Your task to perform on an android device: Clear the cart on target. Add "beats solo 3" to the cart on target, then select checkout. Image 0: 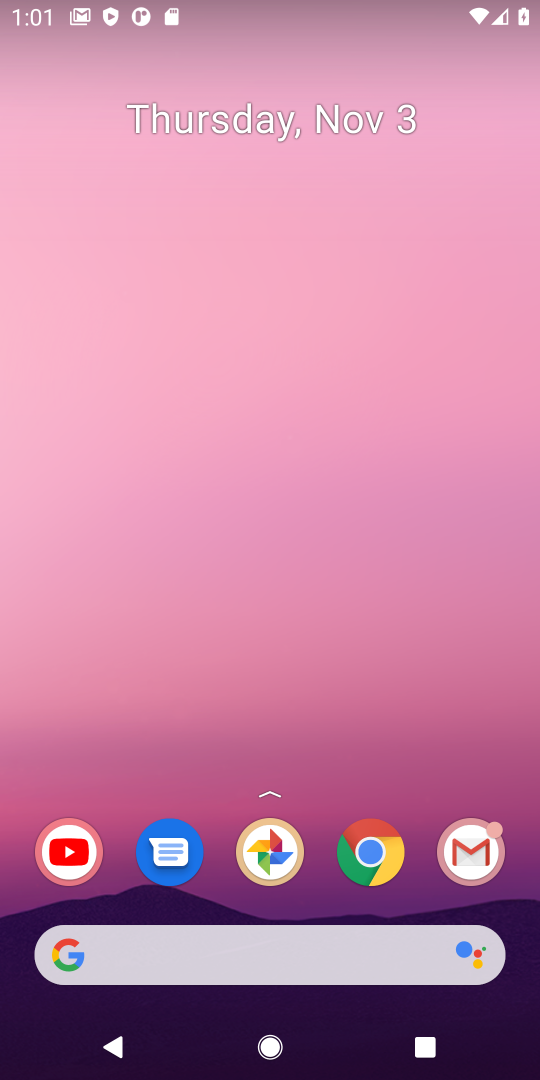
Step 0: click (360, 863)
Your task to perform on an android device: Clear the cart on target. Add "beats solo 3" to the cart on target, then select checkout. Image 1: 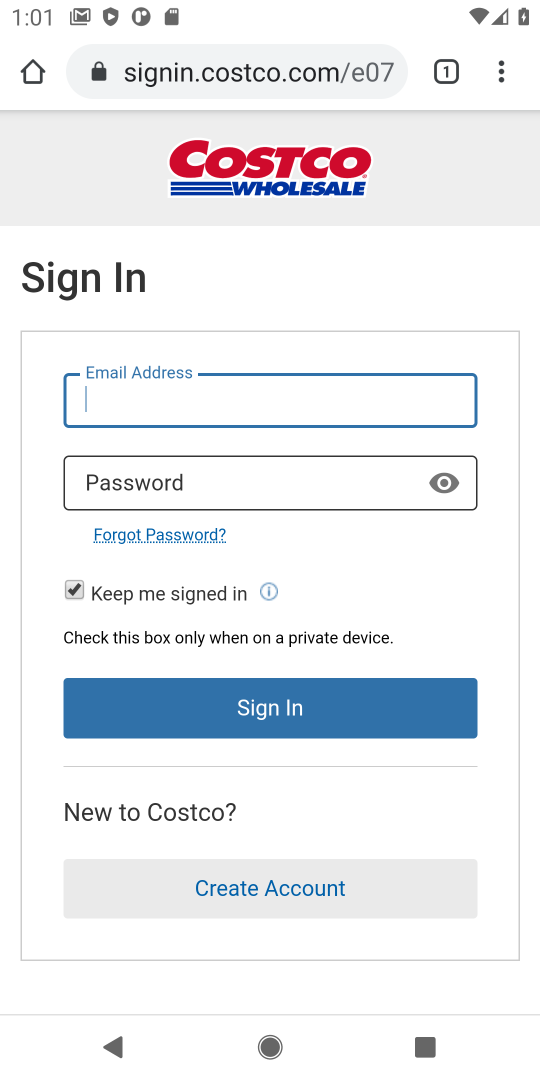
Step 1: click (153, 64)
Your task to perform on an android device: Clear the cart on target. Add "beats solo 3" to the cart on target, then select checkout. Image 2: 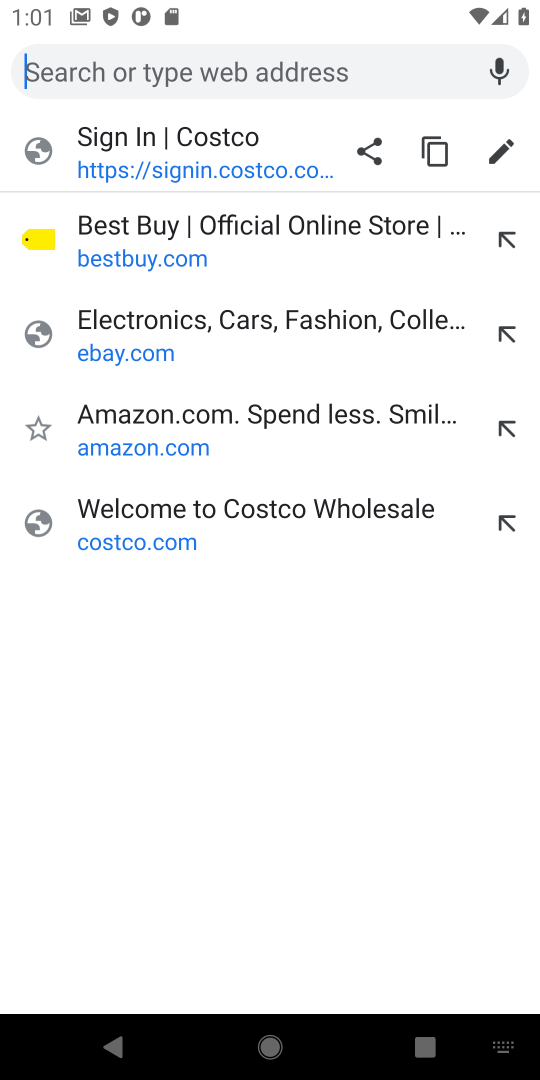
Step 2: type "target.com"
Your task to perform on an android device: Clear the cart on target. Add "beats solo 3" to the cart on target, then select checkout. Image 3: 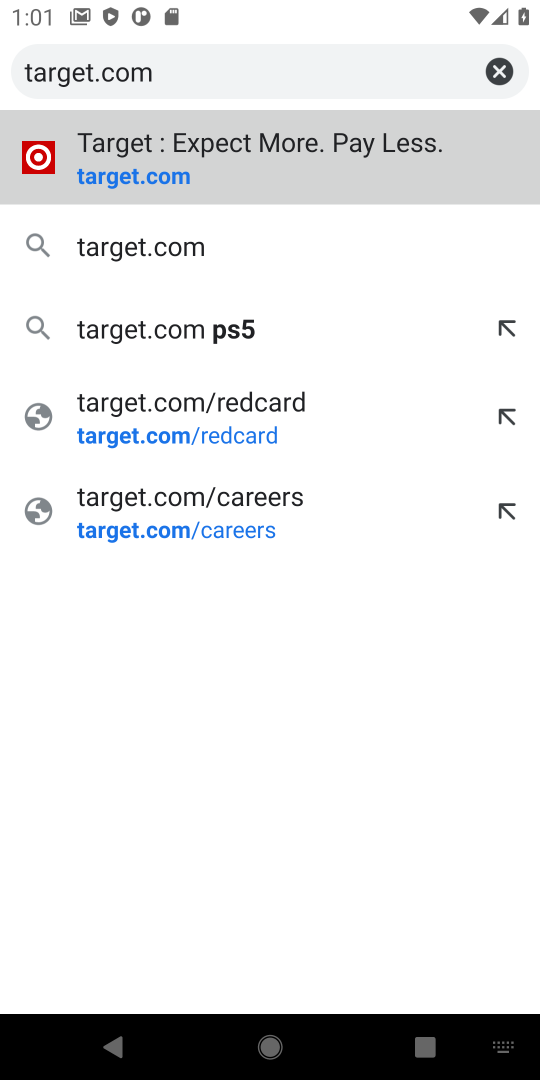
Step 3: click (154, 178)
Your task to perform on an android device: Clear the cart on target. Add "beats solo 3" to the cart on target, then select checkout. Image 4: 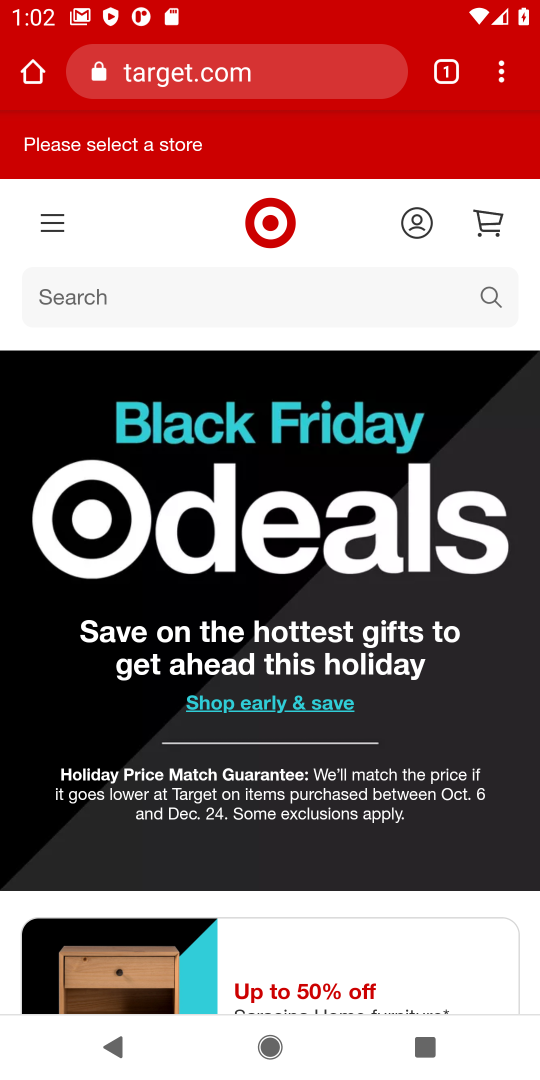
Step 4: click (496, 223)
Your task to perform on an android device: Clear the cart on target. Add "beats solo 3" to the cart on target, then select checkout. Image 5: 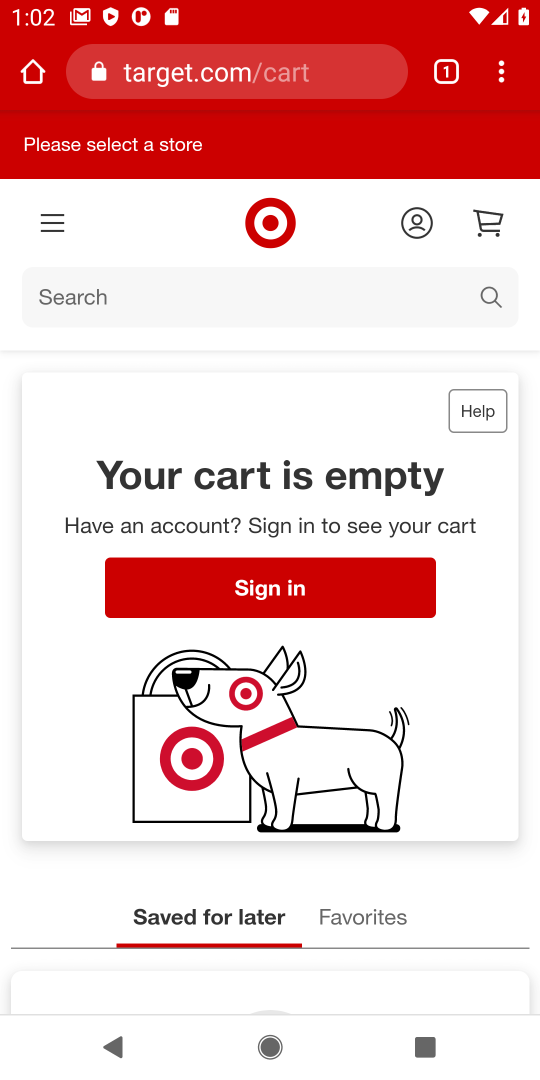
Step 5: click (487, 298)
Your task to perform on an android device: Clear the cart on target. Add "beats solo 3" to the cart on target, then select checkout. Image 6: 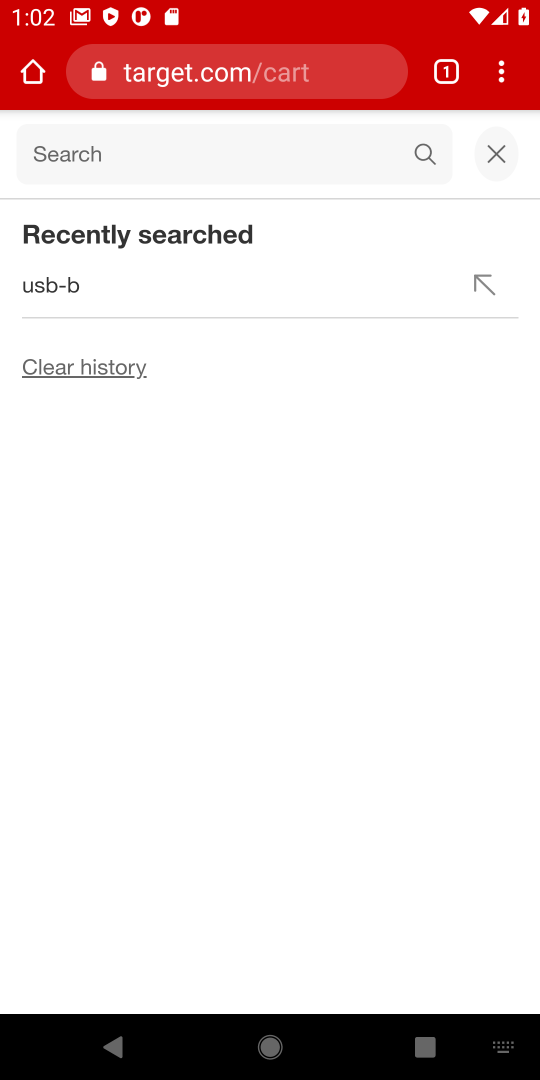
Step 6: type "beats solo 3"
Your task to perform on an android device: Clear the cart on target. Add "beats solo 3" to the cart on target, then select checkout. Image 7: 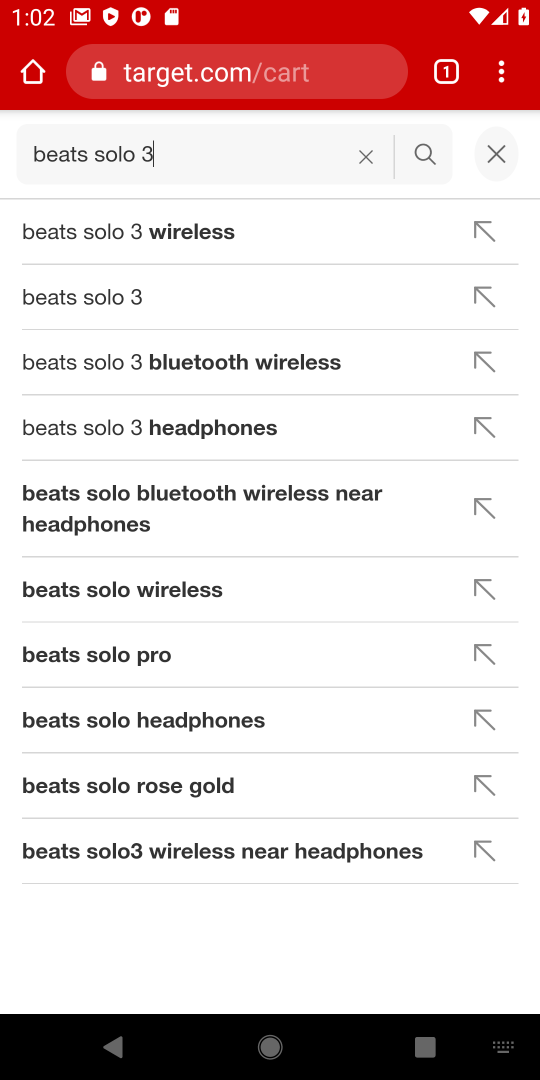
Step 7: click (86, 295)
Your task to perform on an android device: Clear the cart on target. Add "beats solo 3" to the cart on target, then select checkout. Image 8: 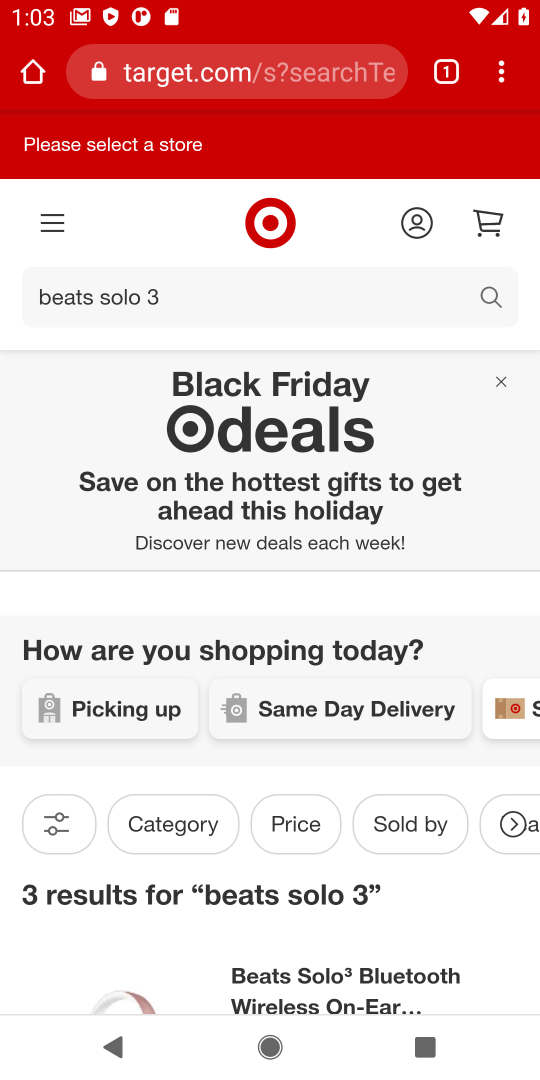
Step 8: drag from (265, 620) to (306, 157)
Your task to perform on an android device: Clear the cart on target. Add "beats solo 3" to the cart on target, then select checkout. Image 9: 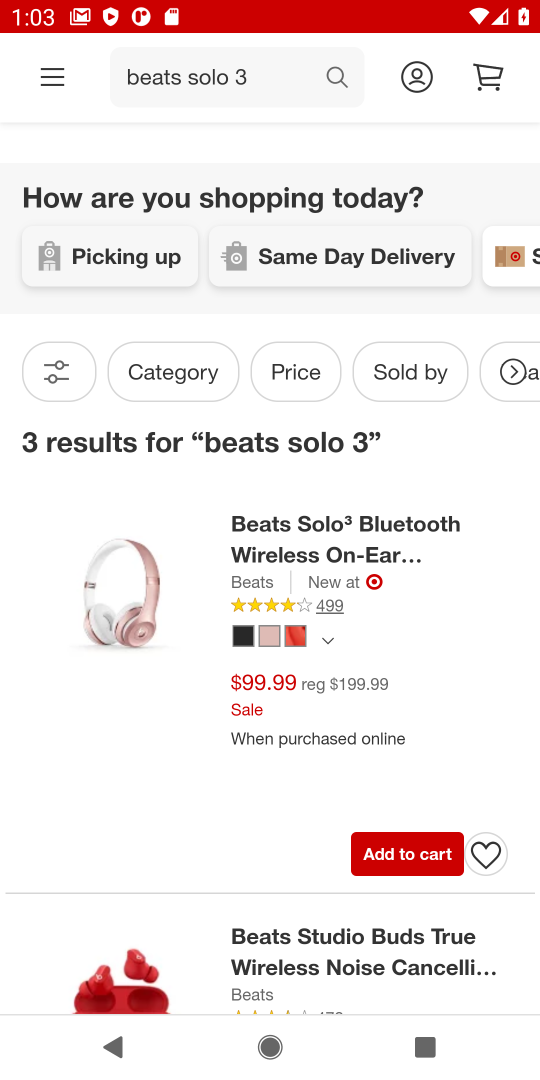
Step 9: click (275, 577)
Your task to perform on an android device: Clear the cart on target. Add "beats solo 3" to the cart on target, then select checkout. Image 10: 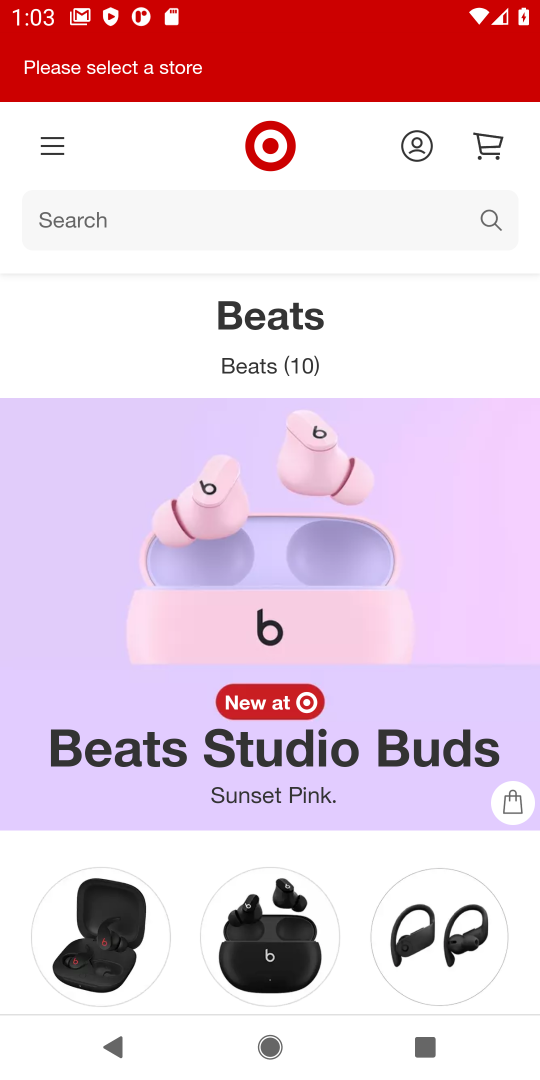
Step 10: drag from (270, 738) to (291, 361)
Your task to perform on an android device: Clear the cart on target. Add "beats solo 3" to the cart on target, then select checkout. Image 11: 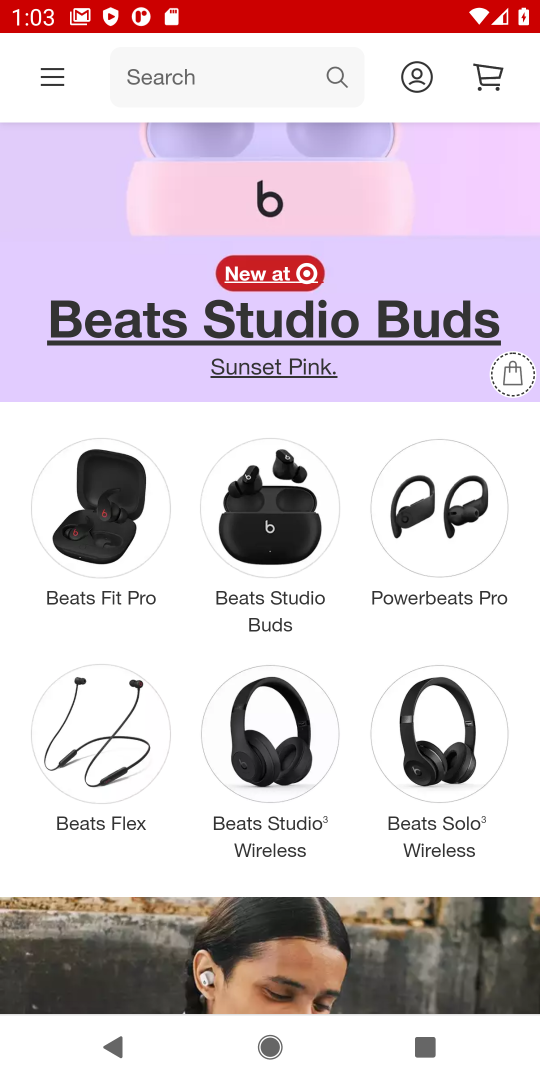
Step 11: drag from (291, 361) to (287, 897)
Your task to perform on an android device: Clear the cart on target. Add "beats solo 3" to the cart on target, then select checkout. Image 12: 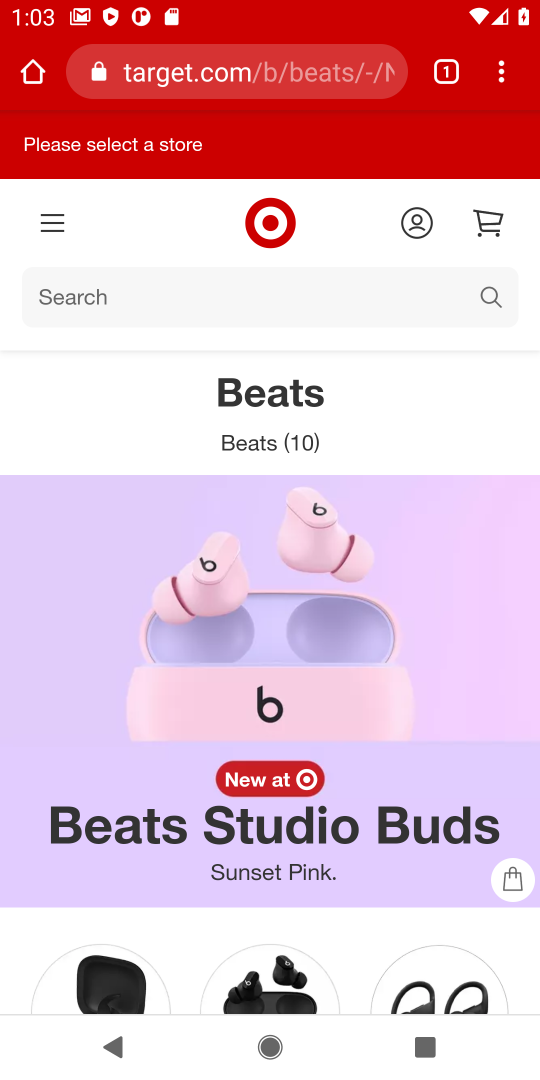
Step 12: press back button
Your task to perform on an android device: Clear the cart on target. Add "beats solo 3" to the cart on target, then select checkout. Image 13: 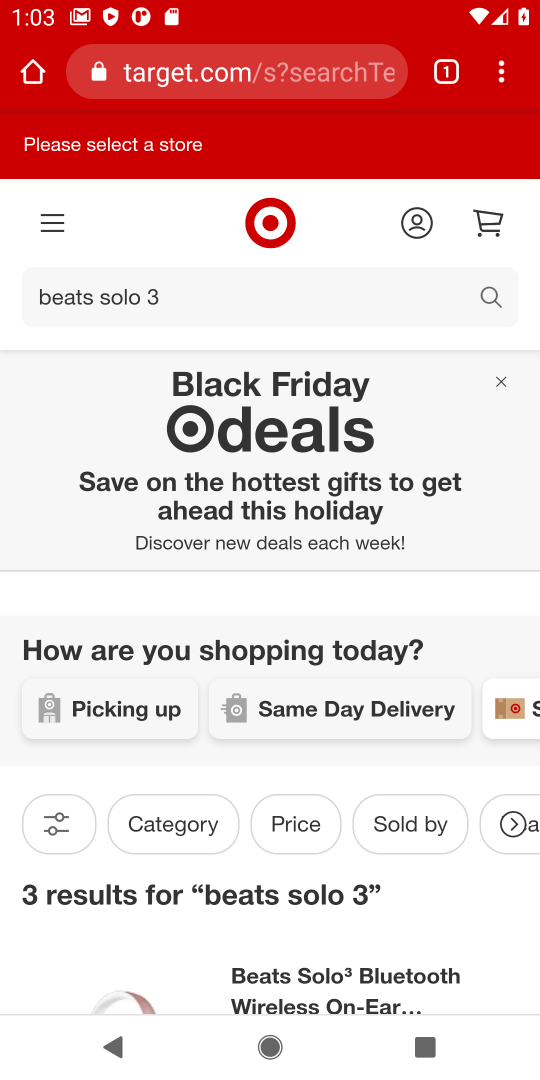
Step 13: drag from (280, 620) to (288, 272)
Your task to perform on an android device: Clear the cart on target. Add "beats solo 3" to the cart on target, then select checkout. Image 14: 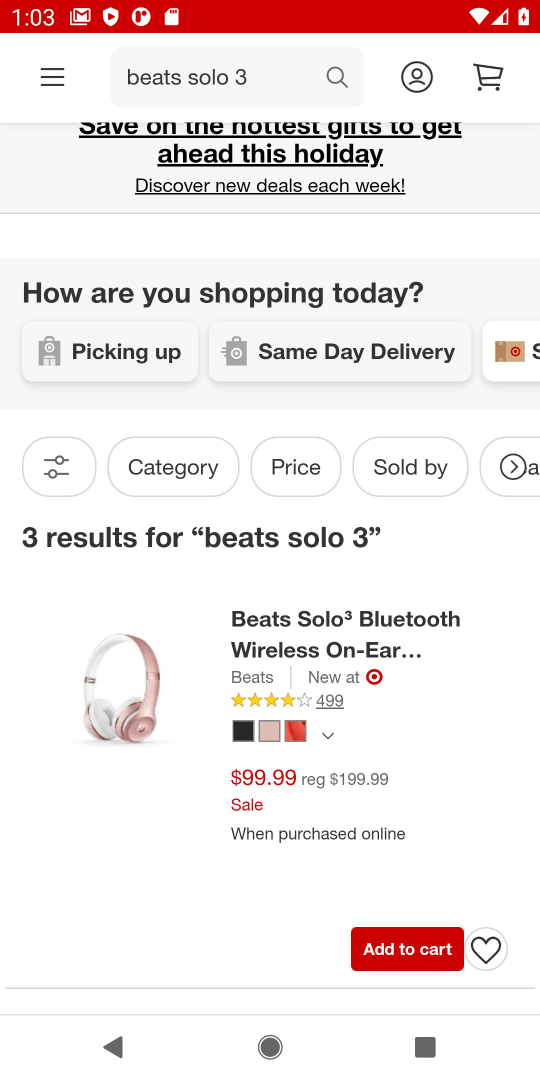
Step 14: click (146, 710)
Your task to perform on an android device: Clear the cart on target. Add "beats solo 3" to the cart on target, then select checkout. Image 15: 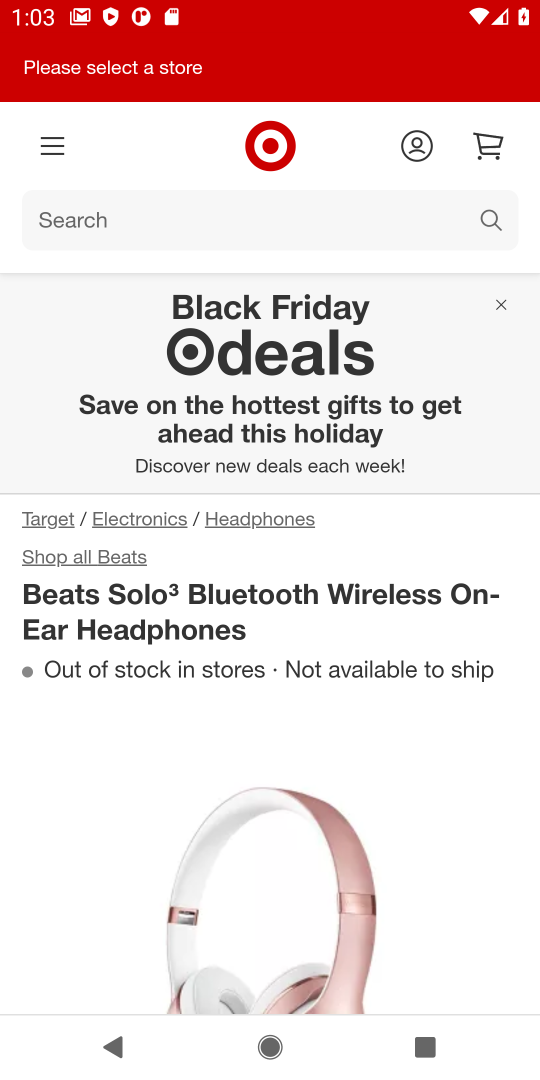
Step 15: drag from (277, 667) to (288, 212)
Your task to perform on an android device: Clear the cart on target. Add "beats solo 3" to the cart on target, then select checkout. Image 16: 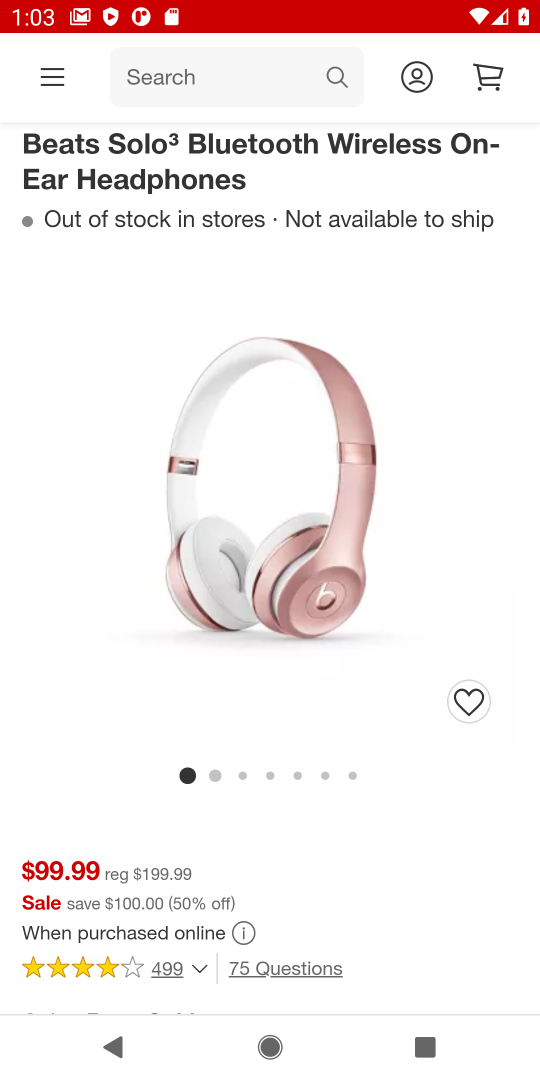
Step 16: drag from (262, 689) to (282, 241)
Your task to perform on an android device: Clear the cart on target. Add "beats solo 3" to the cart on target, then select checkout. Image 17: 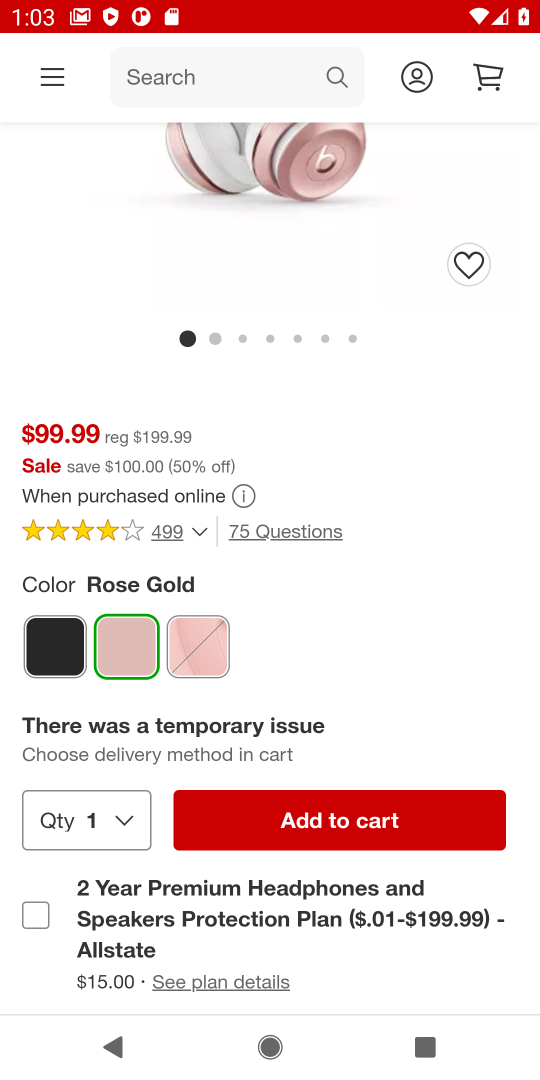
Step 17: click (267, 795)
Your task to perform on an android device: Clear the cart on target. Add "beats solo 3" to the cart on target, then select checkout. Image 18: 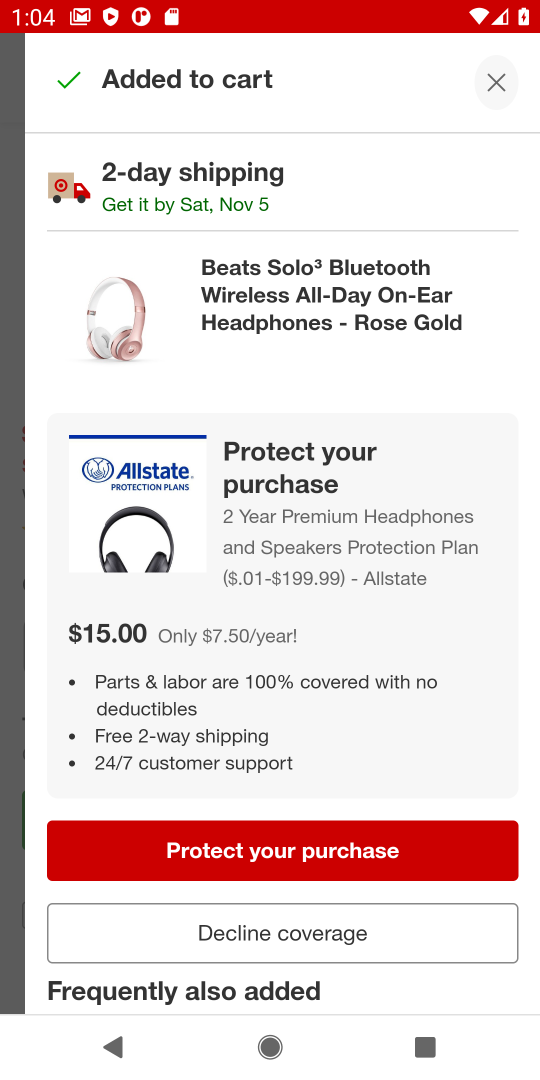
Step 18: click (507, 89)
Your task to perform on an android device: Clear the cart on target. Add "beats solo 3" to the cart on target, then select checkout. Image 19: 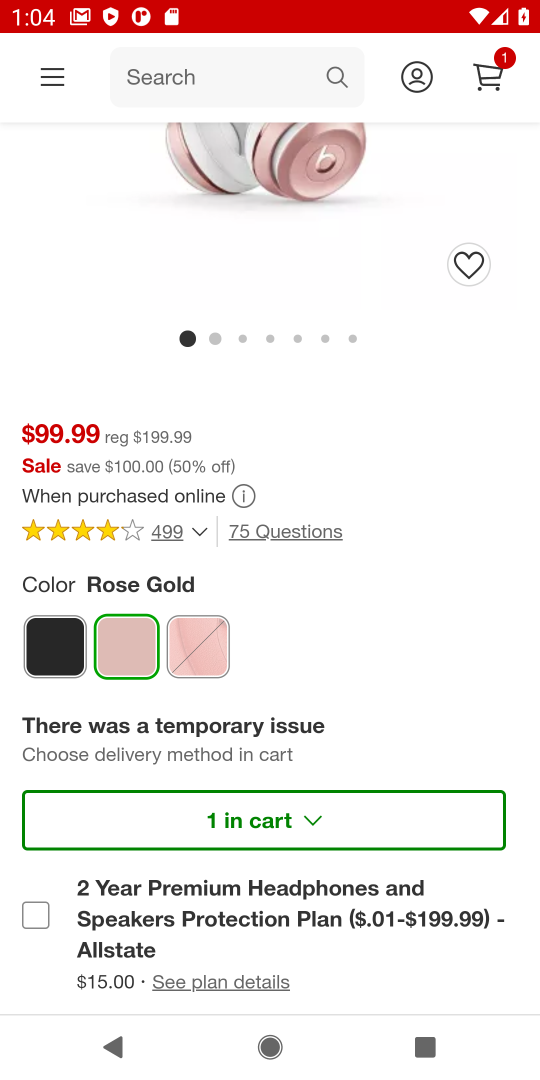
Step 19: drag from (311, 731) to (329, 273)
Your task to perform on an android device: Clear the cart on target. Add "beats solo 3" to the cart on target, then select checkout. Image 20: 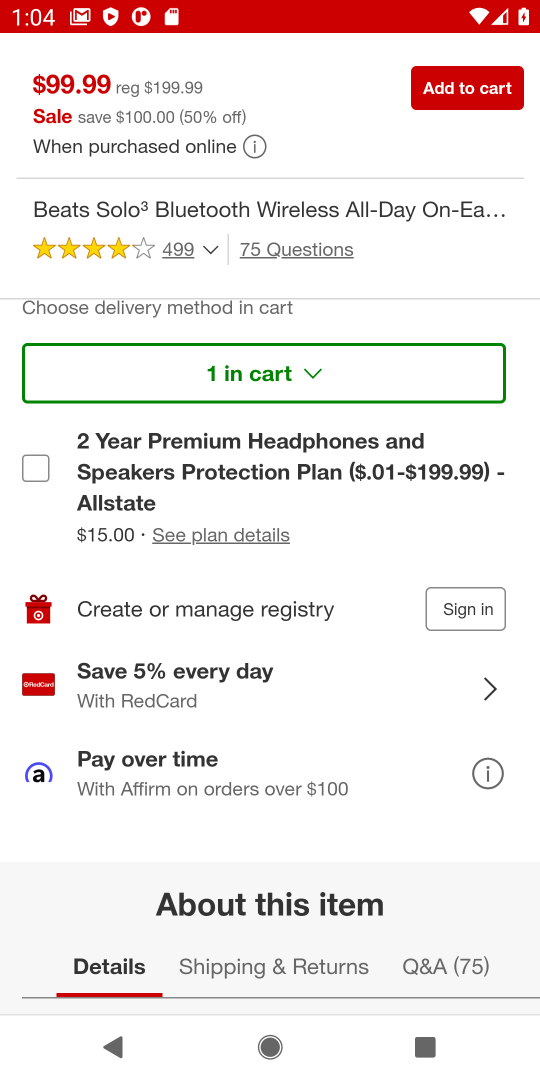
Step 20: drag from (240, 789) to (262, 563)
Your task to perform on an android device: Clear the cart on target. Add "beats solo 3" to the cart on target, then select checkout. Image 21: 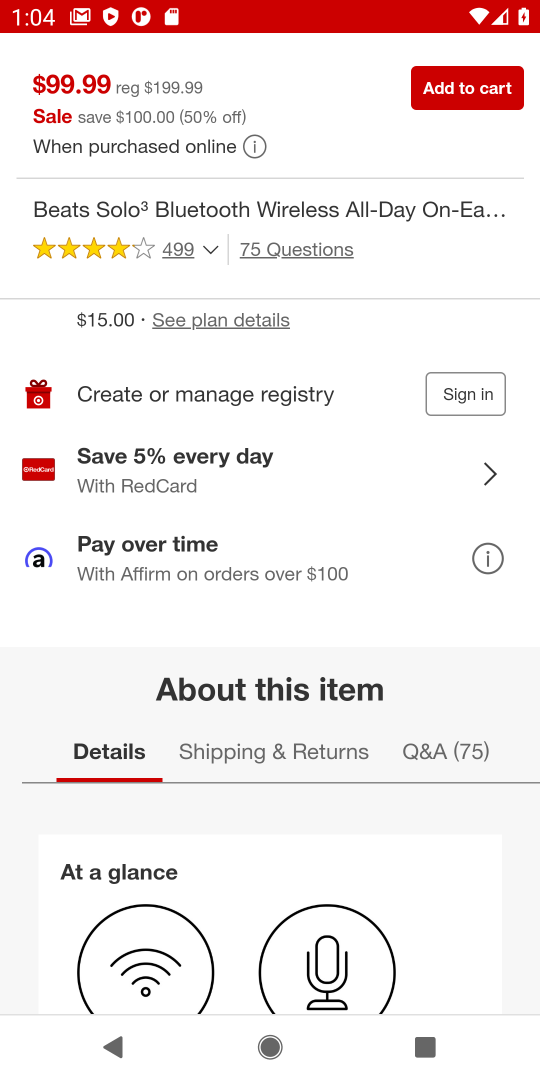
Step 21: drag from (280, 403) to (254, 930)
Your task to perform on an android device: Clear the cart on target. Add "beats solo 3" to the cart on target, then select checkout. Image 22: 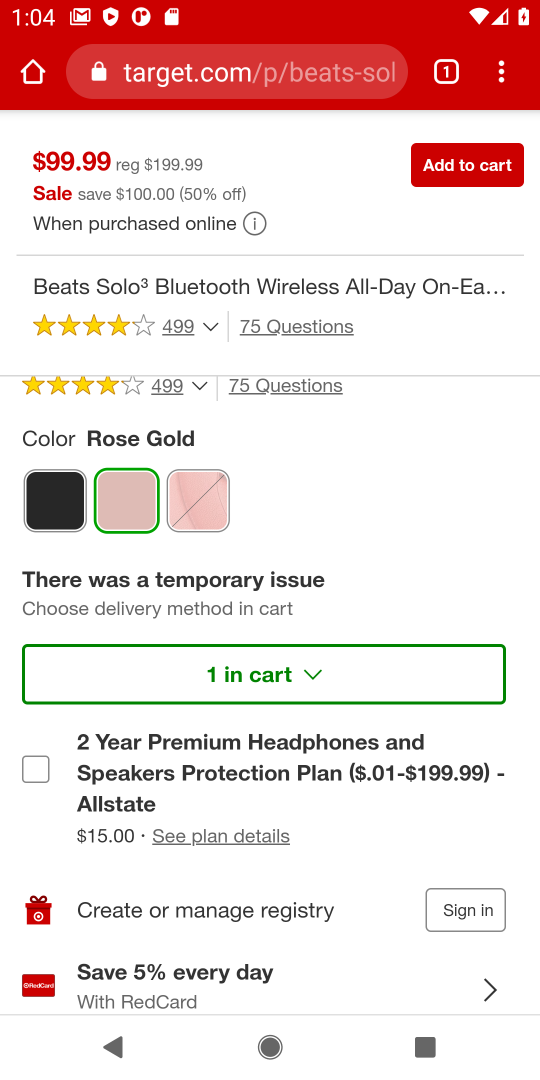
Step 22: drag from (266, 320) to (246, 902)
Your task to perform on an android device: Clear the cart on target. Add "beats solo 3" to the cart on target, then select checkout. Image 23: 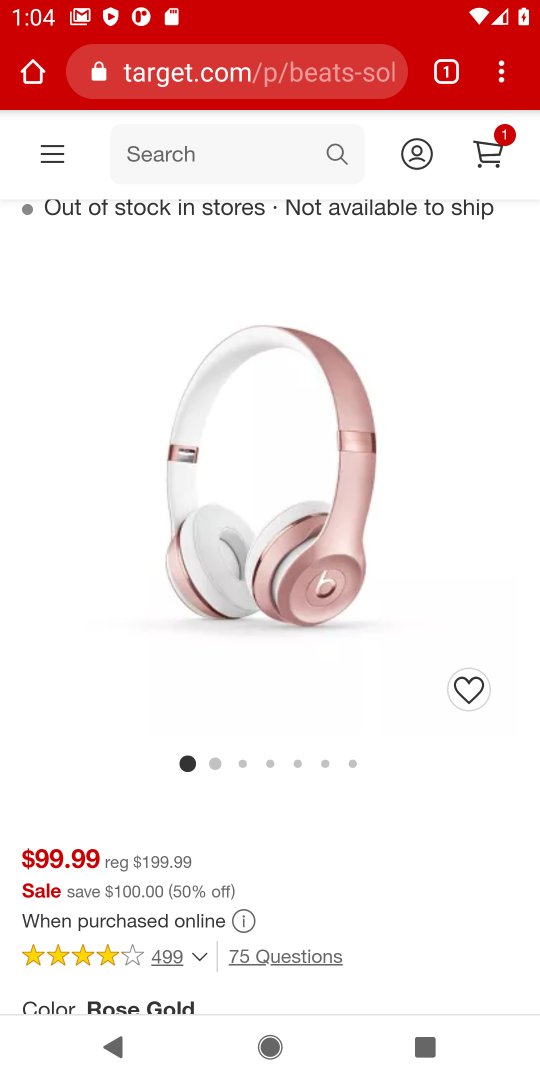
Step 23: click (487, 149)
Your task to perform on an android device: Clear the cart on target. Add "beats solo 3" to the cart on target, then select checkout. Image 24: 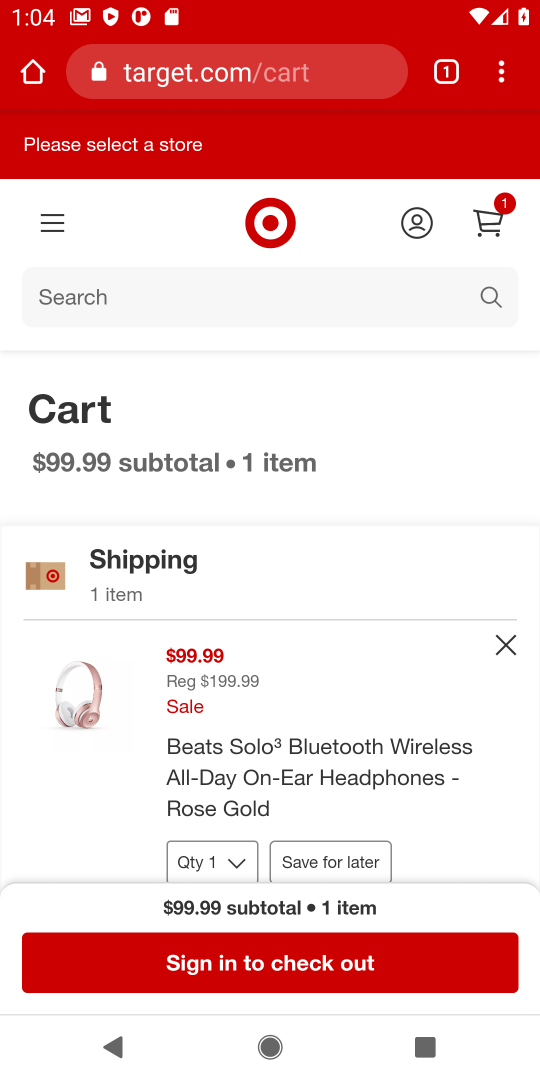
Step 24: click (271, 968)
Your task to perform on an android device: Clear the cart on target. Add "beats solo 3" to the cart on target, then select checkout. Image 25: 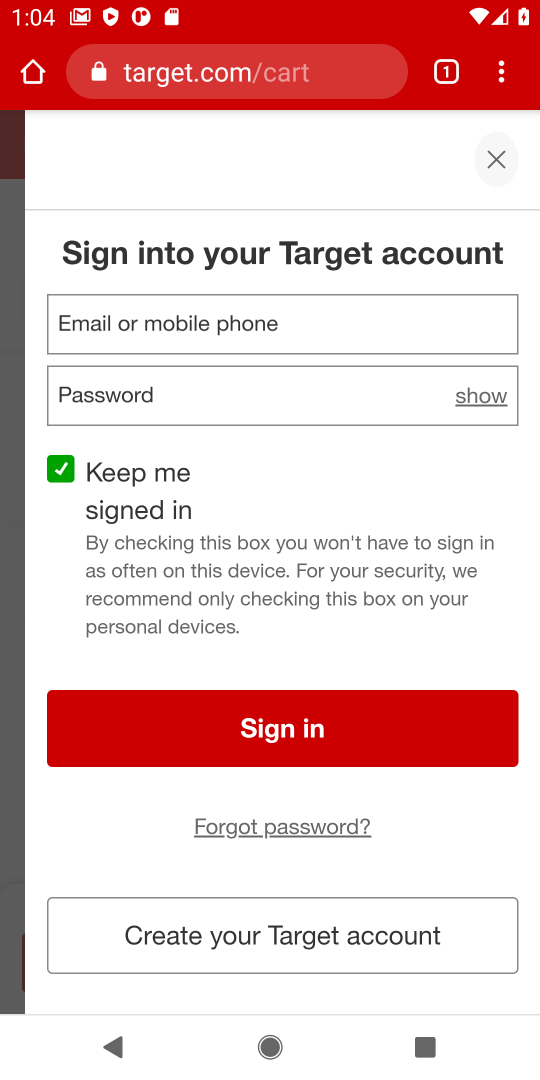
Step 25: task complete